Your task to perform on an android device: Open Google Maps and go to "Timeline" Image 0: 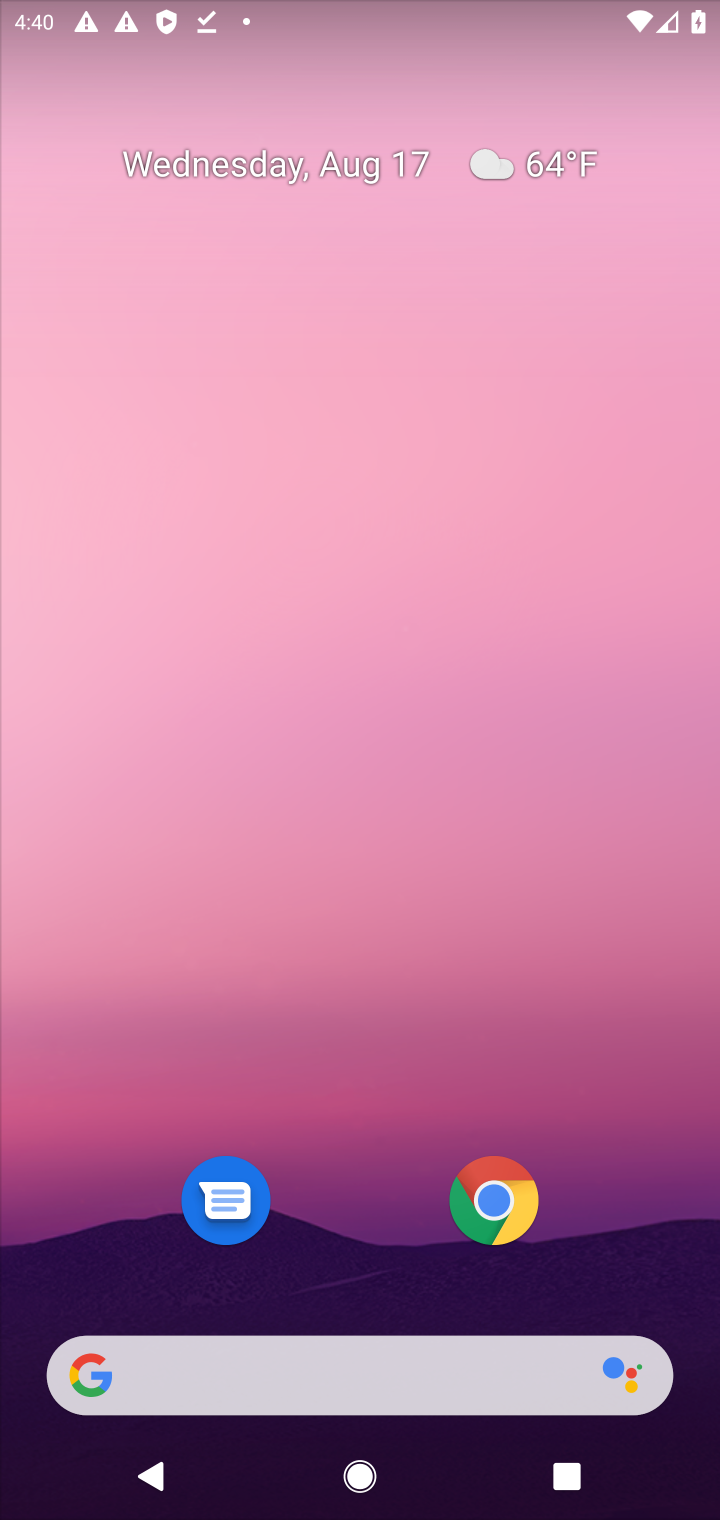
Step 0: drag from (356, 1272) to (326, 90)
Your task to perform on an android device: Open Google Maps and go to "Timeline" Image 1: 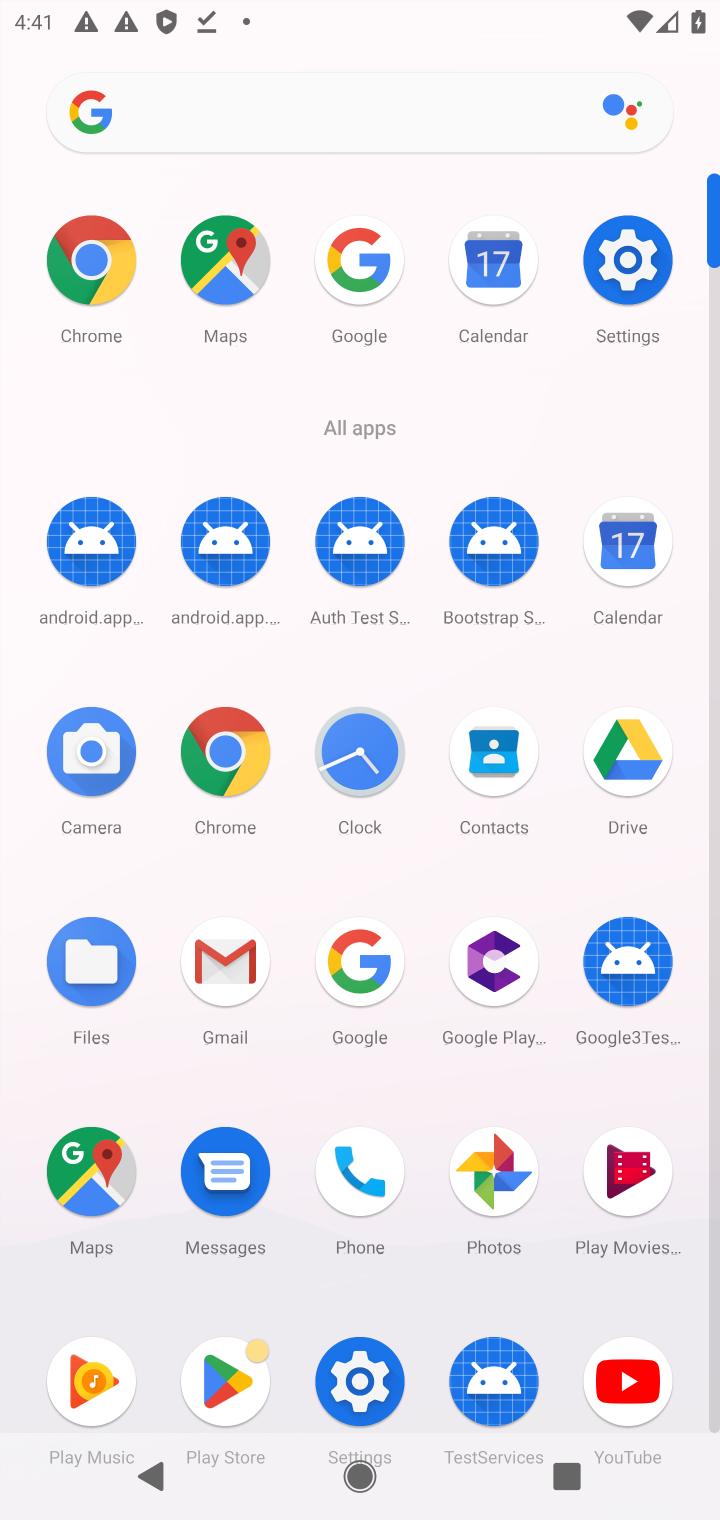
Step 1: click (80, 1178)
Your task to perform on an android device: Open Google Maps and go to "Timeline" Image 2: 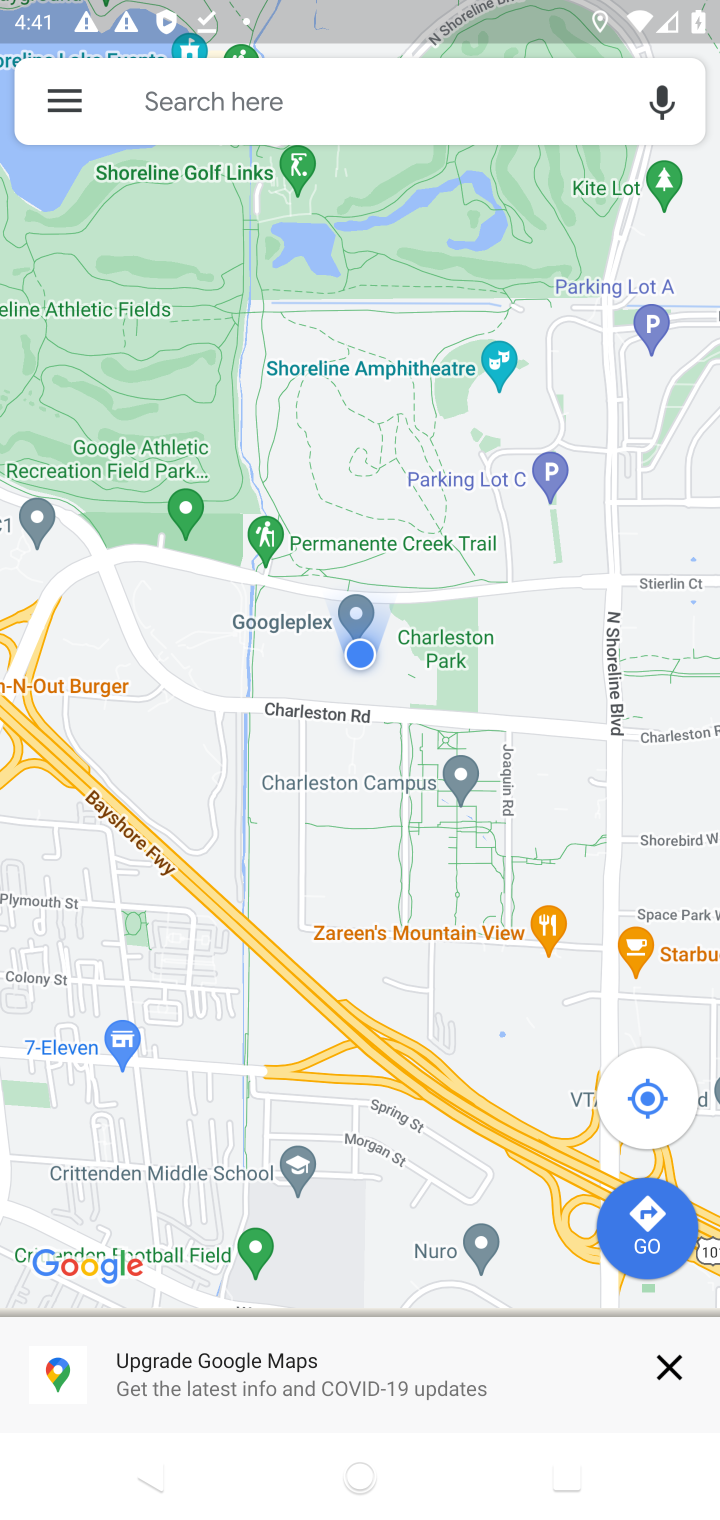
Step 2: task complete